Your task to perform on an android device: Open the Play Movies app and select the watchlist tab. Image 0: 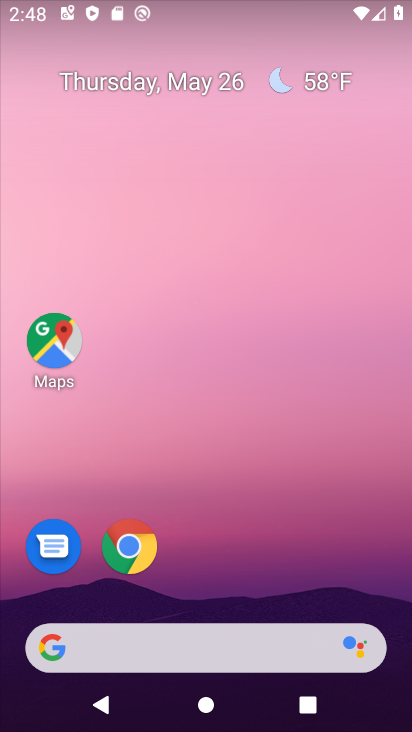
Step 0: press home button
Your task to perform on an android device: Open the Play Movies app and select the watchlist tab. Image 1: 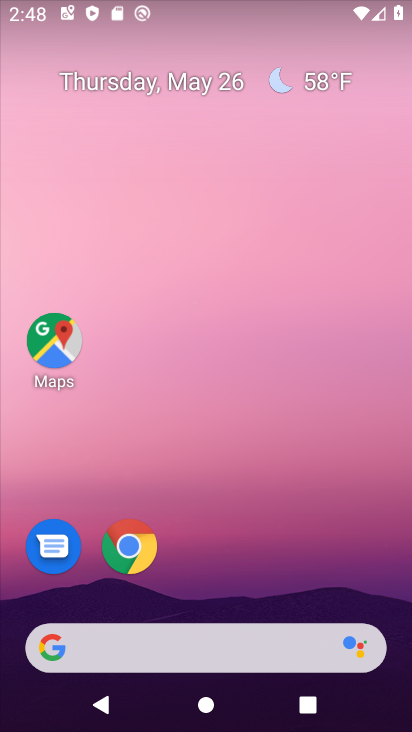
Step 1: drag from (223, 585) to (244, 4)
Your task to perform on an android device: Open the Play Movies app and select the watchlist tab. Image 2: 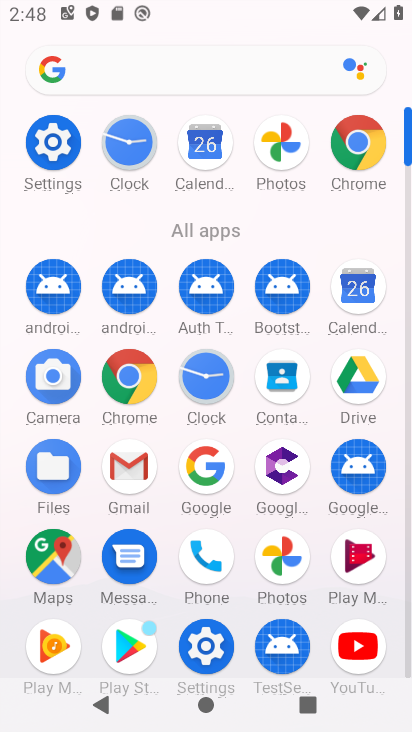
Step 2: click (361, 554)
Your task to perform on an android device: Open the Play Movies app and select the watchlist tab. Image 3: 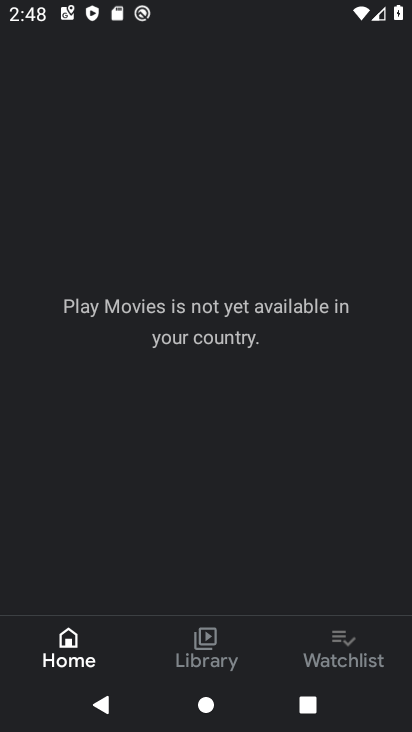
Step 3: click (341, 631)
Your task to perform on an android device: Open the Play Movies app and select the watchlist tab. Image 4: 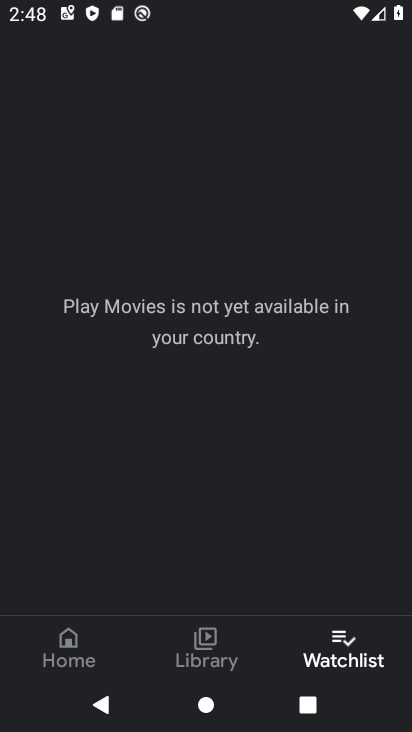
Step 4: task complete